Your task to perform on an android device: Open Google Chrome and open the bookmarks view Image 0: 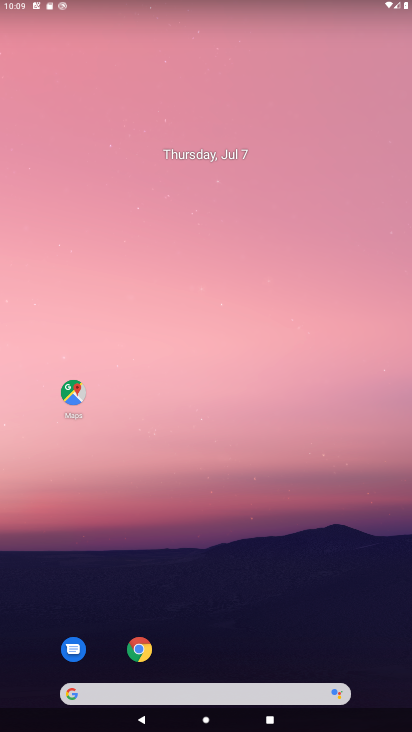
Step 0: click (140, 643)
Your task to perform on an android device: Open Google Chrome and open the bookmarks view Image 1: 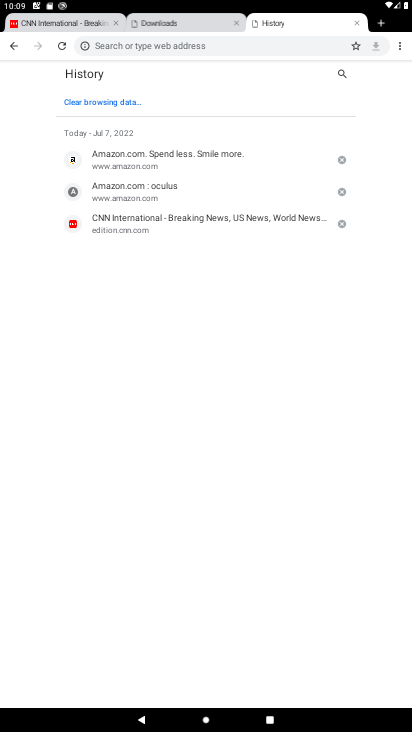
Step 1: click (399, 46)
Your task to perform on an android device: Open Google Chrome and open the bookmarks view Image 2: 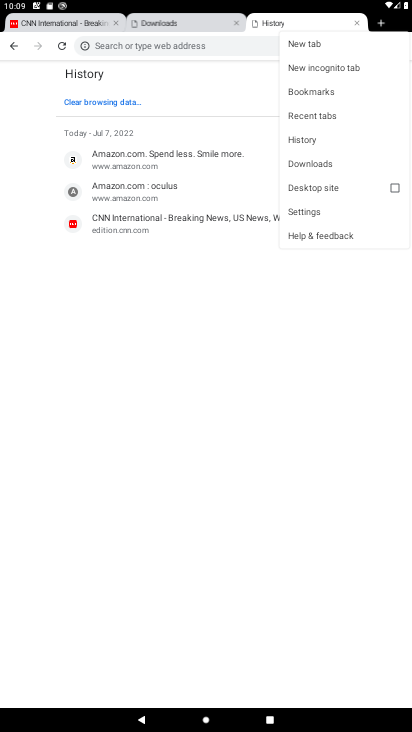
Step 2: click (332, 92)
Your task to perform on an android device: Open Google Chrome and open the bookmarks view Image 3: 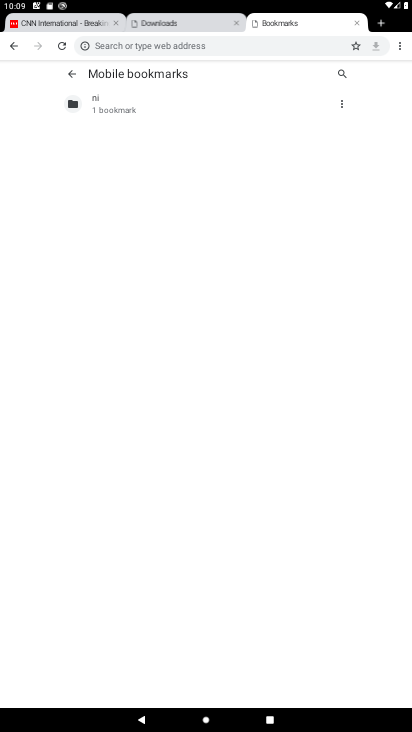
Step 3: task complete